Your task to perform on an android device: Turn on the flashlight Image 0: 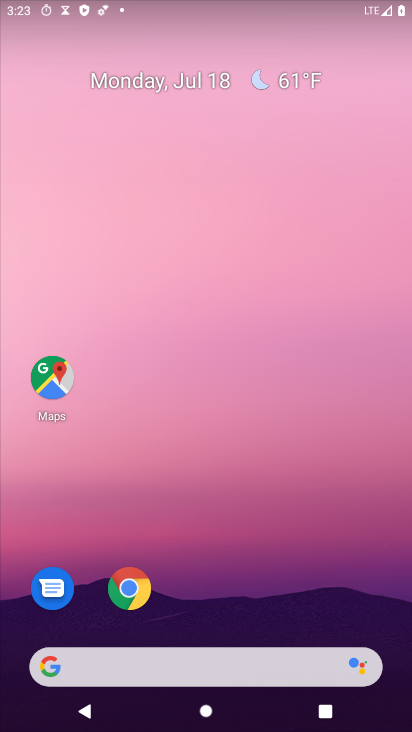
Step 0: drag from (288, 578) to (300, 0)
Your task to perform on an android device: Turn on the flashlight Image 1: 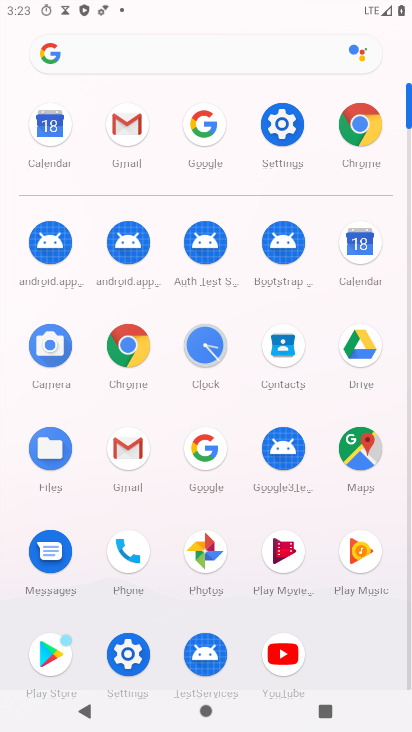
Step 1: click (285, 128)
Your task to perform on an android device: Turn on the flashlight Image 2: 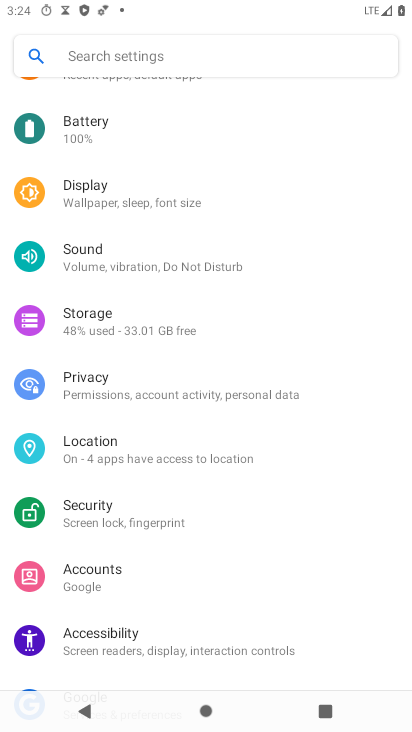
Step 2: task complete